Your task to perform on an android device: Go to Google Image 0: 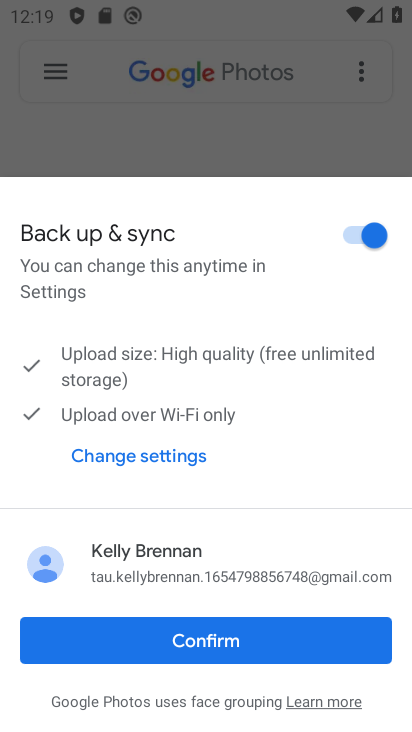
Step 0: press home button
Your task to perform on an android device: Go to Google Image 1: 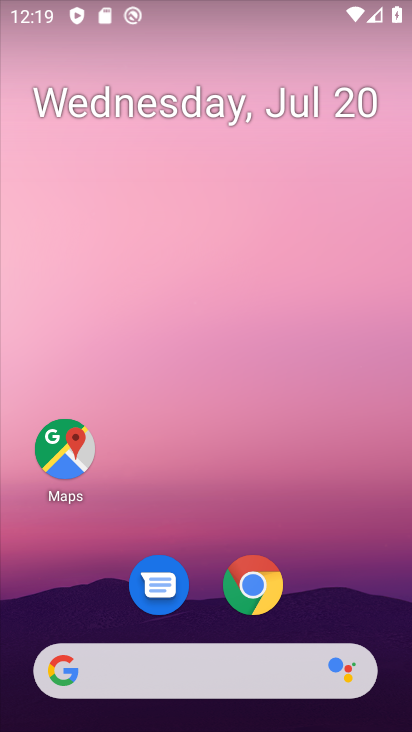
Step 1: drag from (298, 552) to (315, 9)
Your task to perform on an android device: Go to Google Image 2: 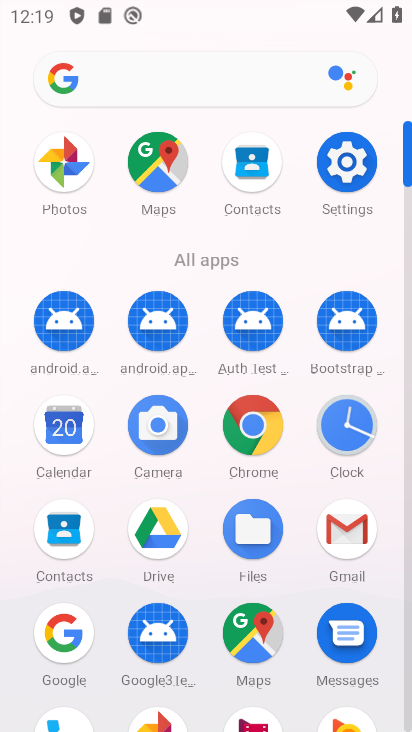
Step 2: click (74, 636)
Your task to perform on an android device: Go to Google Image 3: 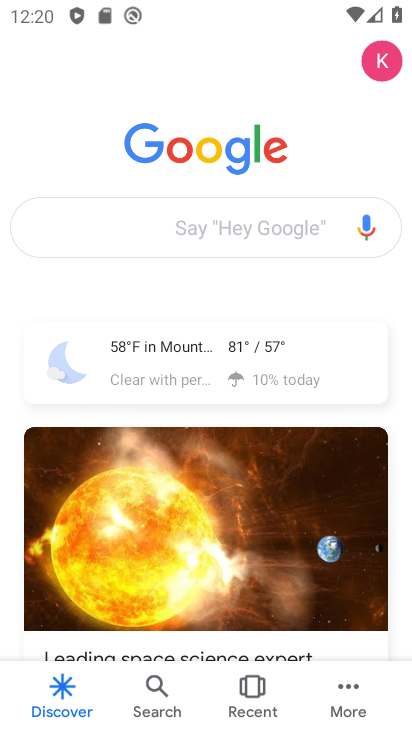
Step 3: task complete